Your task to perform on an android device: Do I have any events this weekend? Image 0: 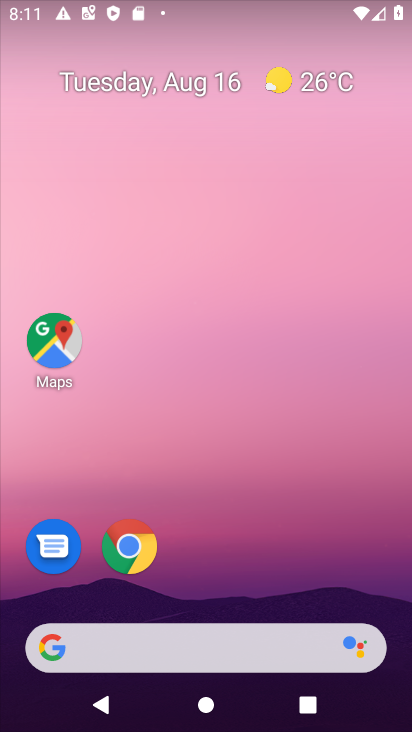
Step 0: drag from (206, 543) to (240, 0)
Your task to perform on an android device: Do I have any events this weekend? Image 1: 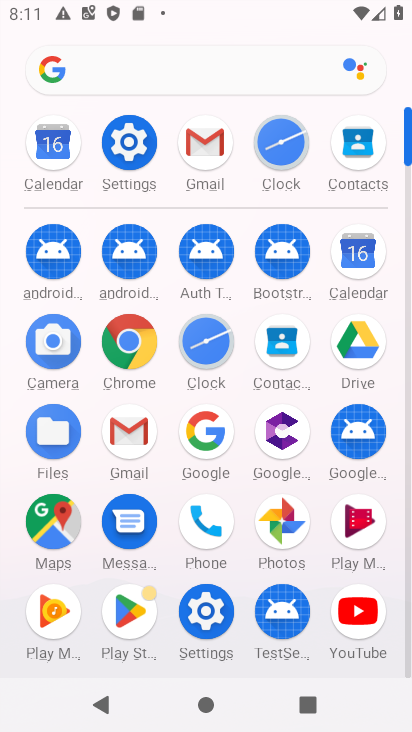
Step 1: click (56, 137)
Your task to perform on an android device: Do I have any events this weekend? Image 2: 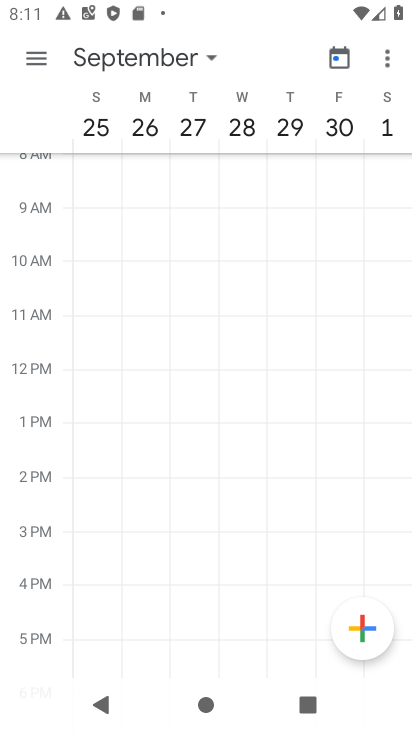
Step 2: click (32, 61)
Your task to perform on an android device: Do I have any events this weekend? Image 3: 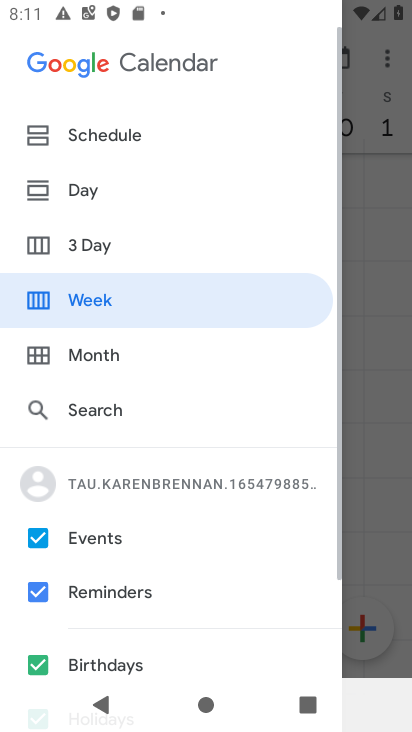
Step 3: click (45, 347)
Your task to perform on an android device: Do I have any events this weekend? Image 4: 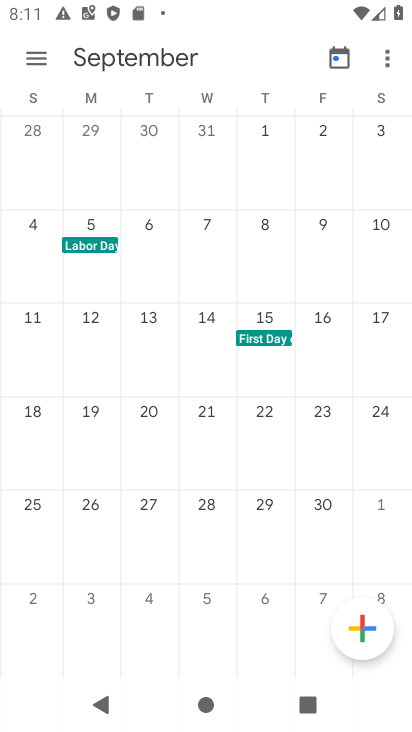
Step 4: drag from (95, 367) to (408, 460)
Your task to perform on an android device: Do I have any events this weekend? Image 5: 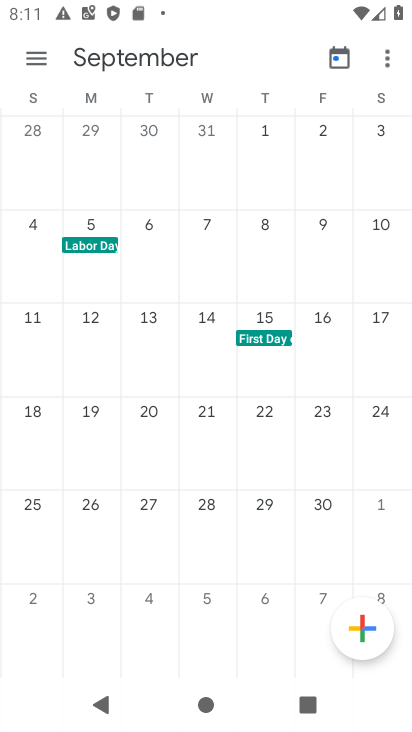
Step 5: drag from (38, 339) to (410, 418)
Your task to perform on an android device: Do I have any events this weekend? Image 6: 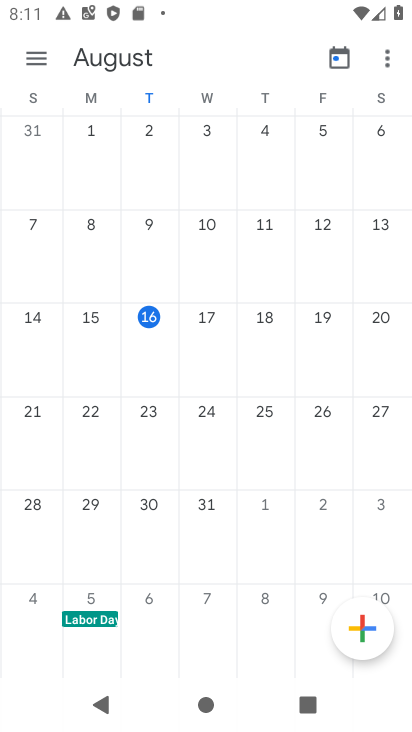
Step 6: click (383, 315)
Your task to perform on an android device: Do I have any events this weekend? Image 7: 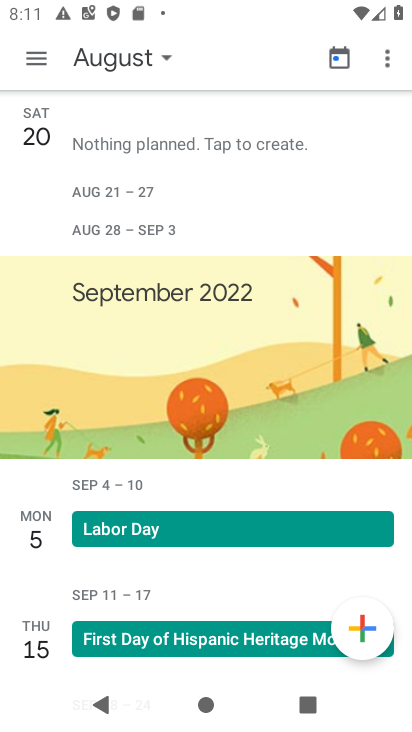
Step 7: task complete